Your task to perform on an android device: turn on improve location accuracy Image 0: 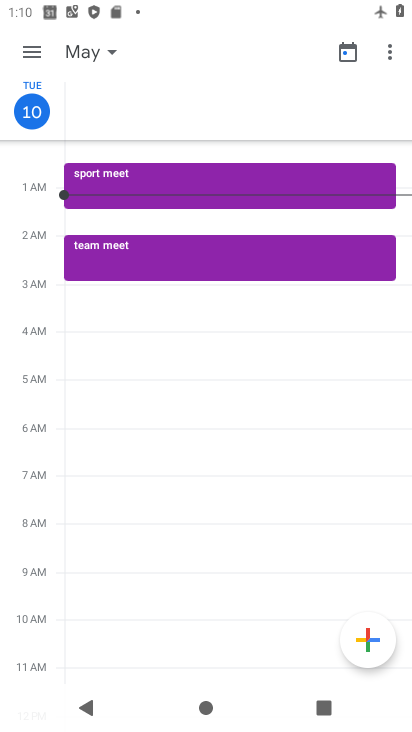
Step 0: press home button
Your task to perform on an android device: turn on improve location accuracy Image 1: 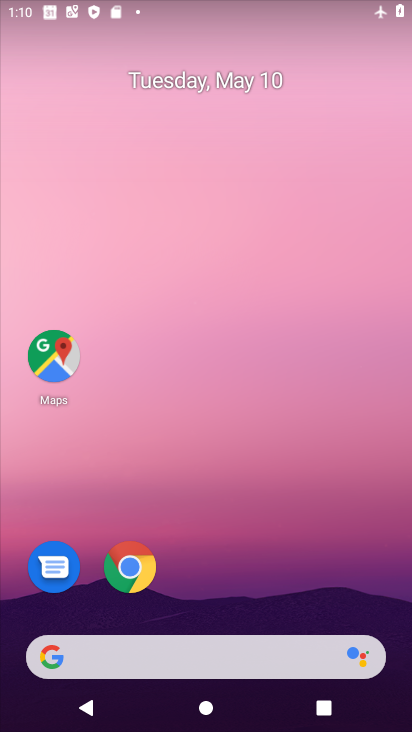
Step 1: drag from (356, 600) to (249, 23)
Your task to perform on an android device: turn on improve location accuracy Image 2: 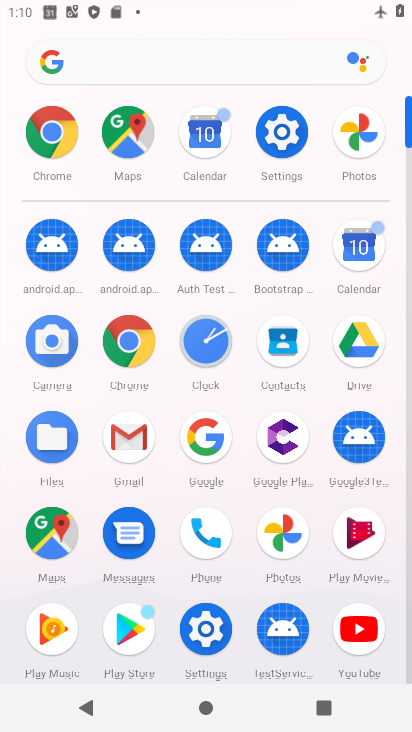
Step 2: click (190, 637)
Your task to perform on an android device: turn on improve location accuracy Image 3: 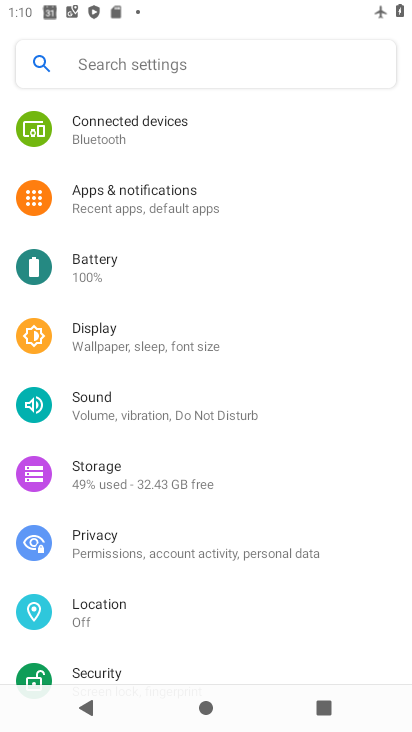
Step 3: click (88, 614)
Your task to perform on an android device: turn on improve location accuracy Image 4: 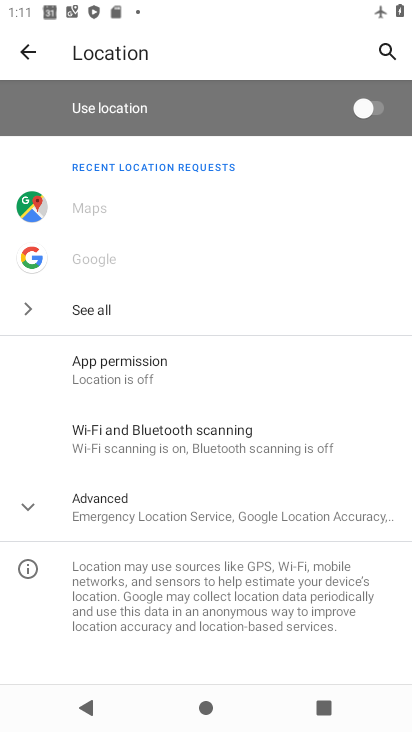
Step 4: click (163, 504)
Your task to perform on an android device: turn on improve location accuracy Image 5: 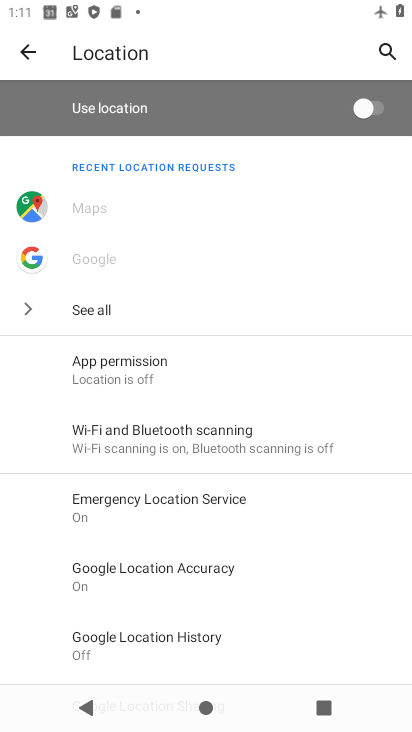
Step 5: click (175, 582)
Your task to perform on an android device: turn on improve location accuracy Image 6: 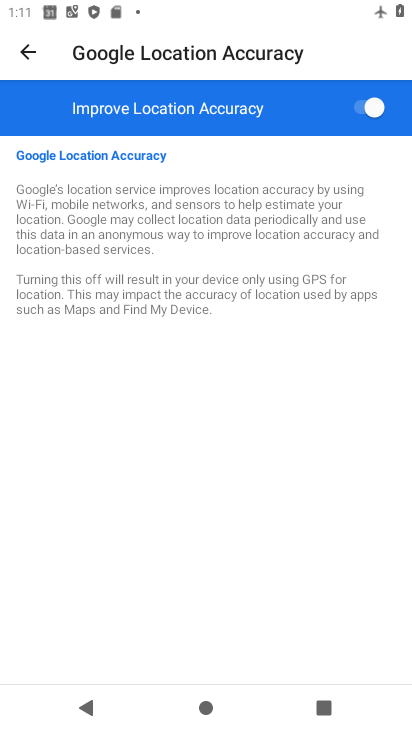
Step 6: task complete